Your task to perform on an android device: check google app version Image 0: 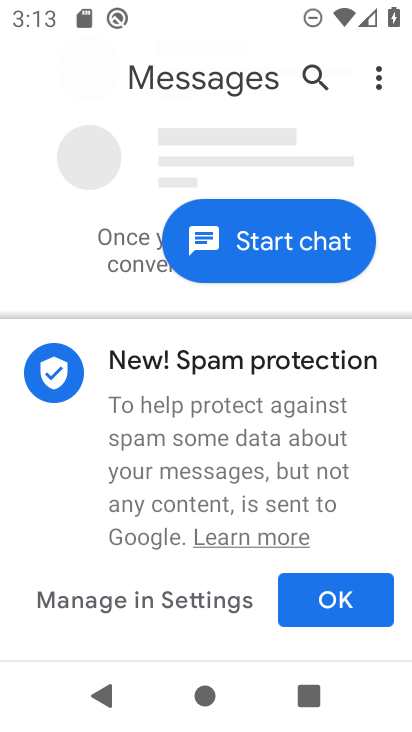
Step 0: press home button
Your task to perform on an android device: check google app version Image 1: 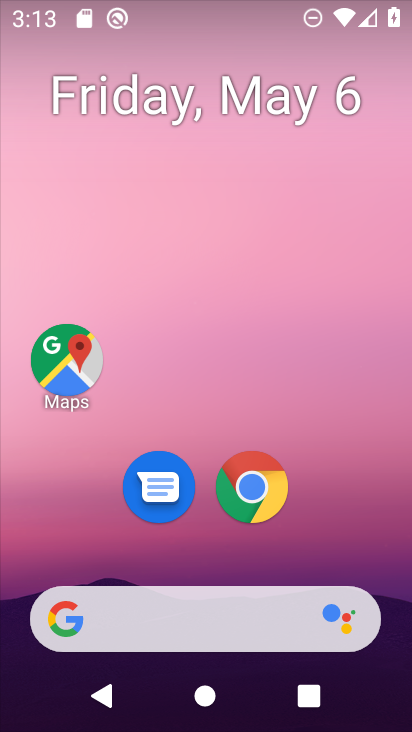
Step 1: drag from (330, 541) to (355, 27)
Your task to perform on an android device: check google app version Image 2: 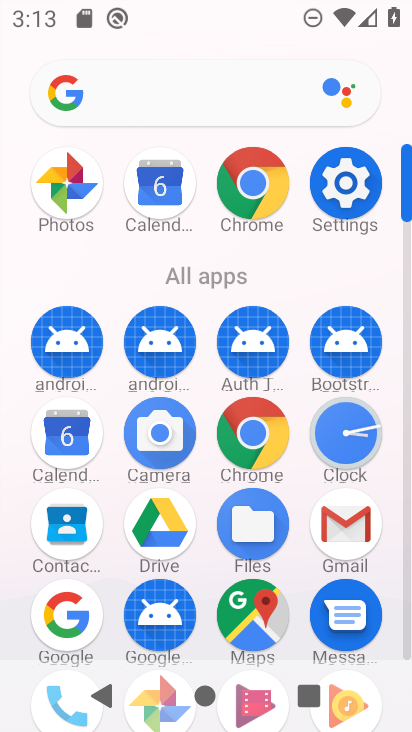
Step 2: click (355, 192)
Your task to perform on an android device: check google app version Image 3: 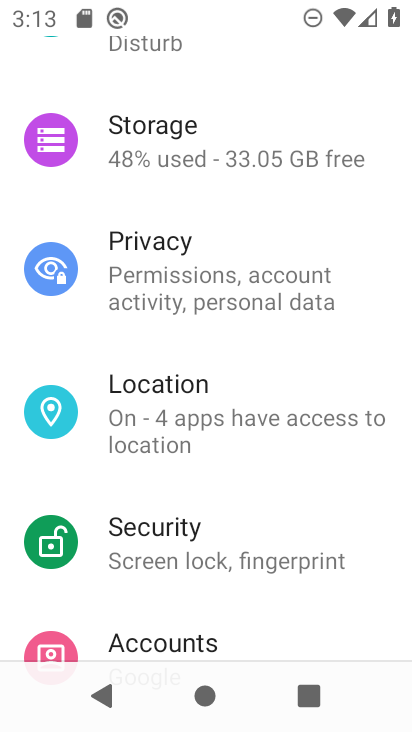
Step 3: drag from (197, 544) to (82, 243)
Your task to perform on an android device: check google app version Image 4: 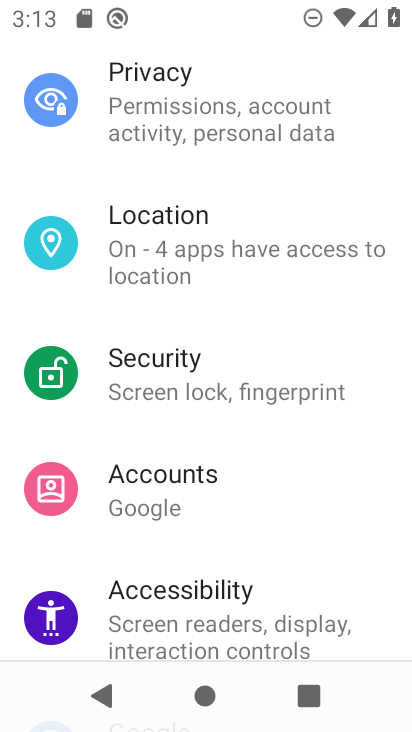
Step 4: drag from (228, 595) to (260, 236)
Your task to perform on an android device: check google app version Image 5: 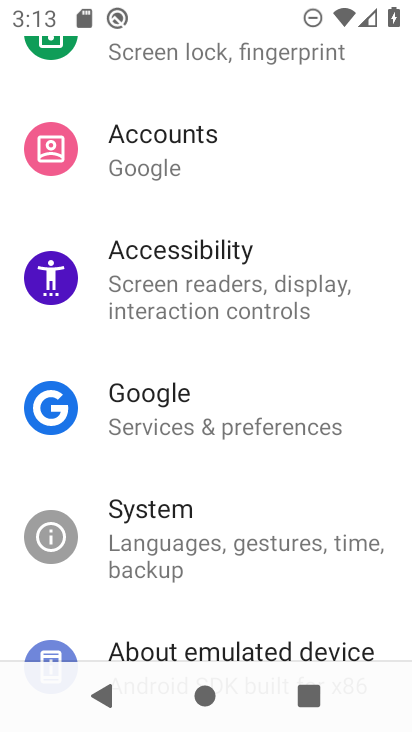
Step 5: drag from (271, 561) to (256, 354)
Your task to perform on an android device: check google app version Image 6: 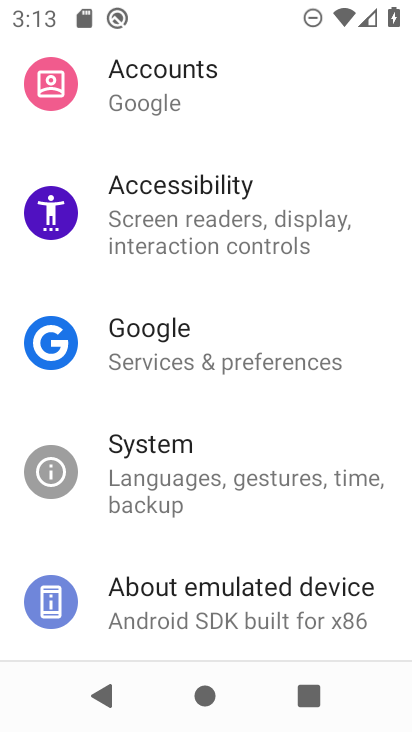
Step 6: click (242, 630)
Your task to perform on an android device: check google app version Image 7: 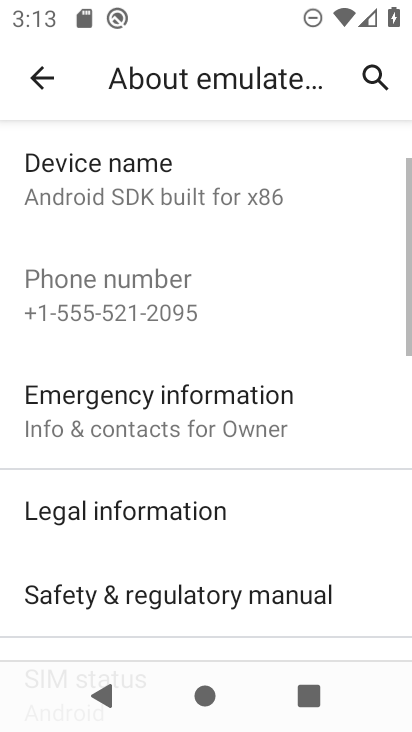
Step 7: drag from (245, 618) to (265, 446)
Your task to perform on an android device: check google app version Image 8: 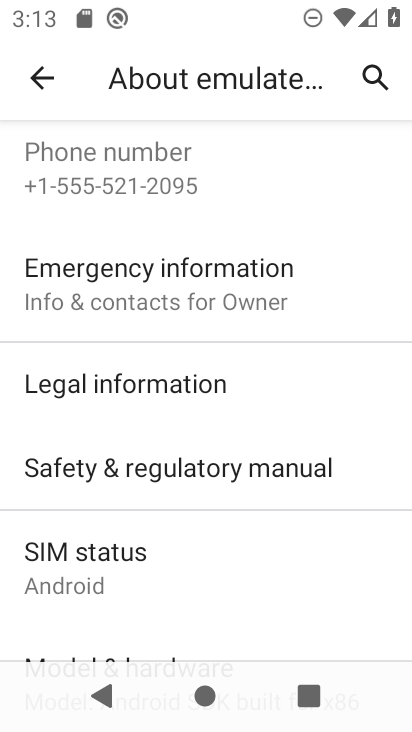
Step 8: drag from (220, 592) to (237, 397)
Your task to perform on an android device: check google app version Image 9: 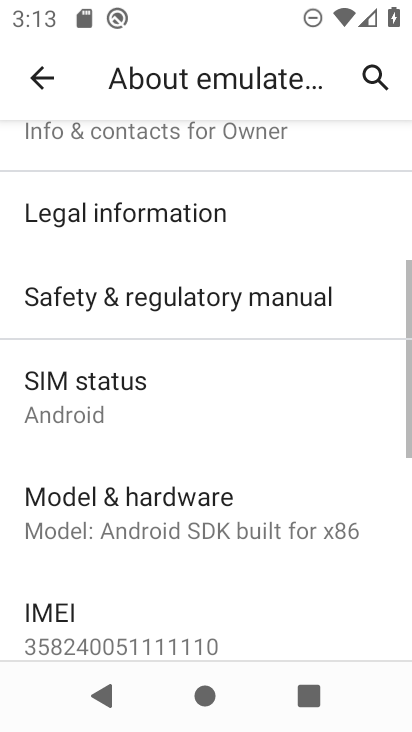
Step 9: drag from (221, 630) to (246, 417)
Your task to perform on an android device: check google app version Image 10: 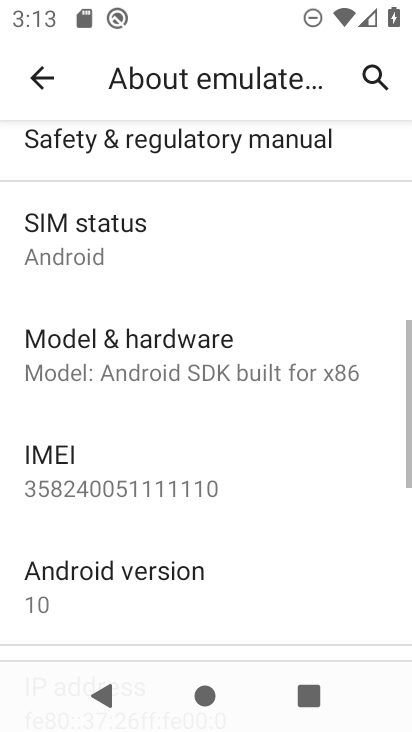
Step 10: click (229, 583)
Your task to perform on an android device: check google app version Image 11: 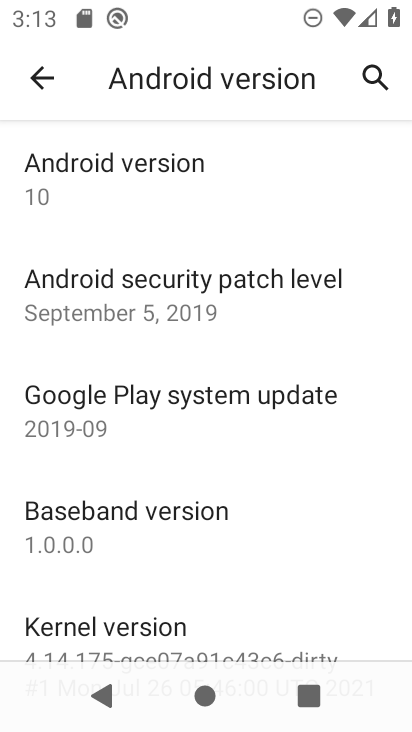
Step 11: click (192, 173)
Your task to perform on an android device: check google app version Image 12: 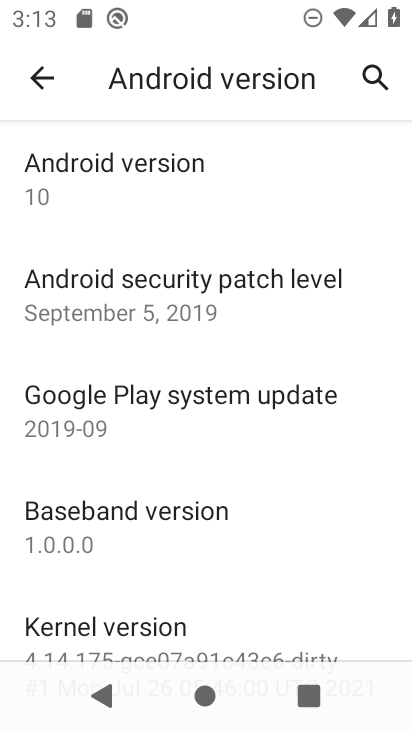
Step 12: task complete